Your task to perform on an android device: Open location settings Image 0: 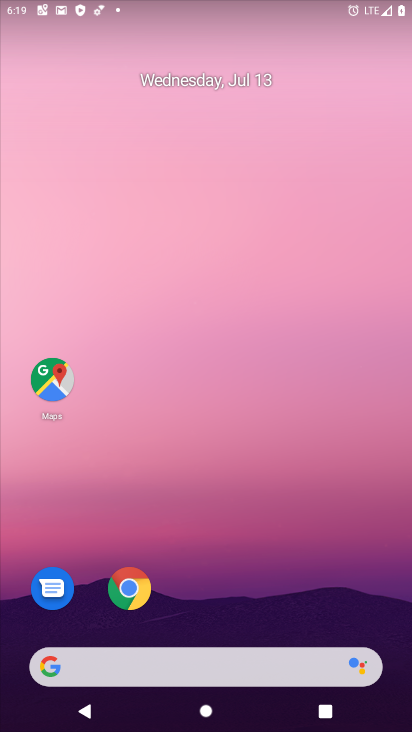
Step 0: drag from (185, 583) to (173, 345)
Your task to perform on an android device: Open location settings Image 1: 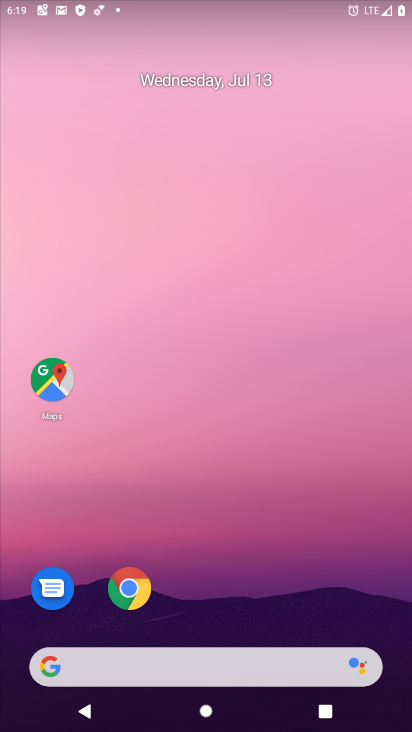
Step 1: drag from (173, 439) to (173, 6)
Your task to perform on an android device: Open location settings Image 2: 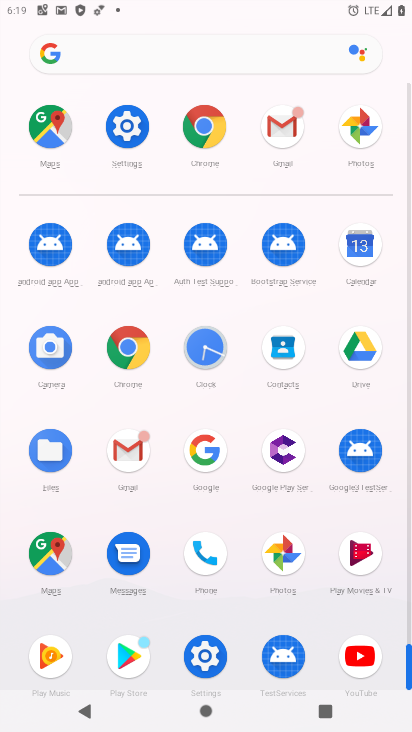
Step 2: click (126, 127)
Your task to perform on an android device: Open location settings Image 3: 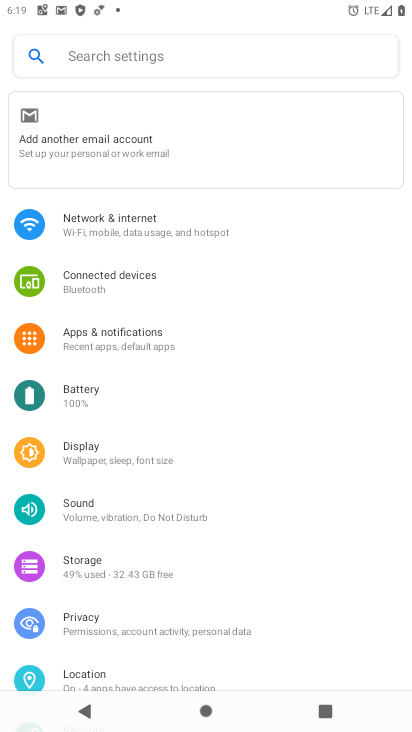
Step 3: click (94, 671)
Your task to perform on an android device: Open location settings Image 4: 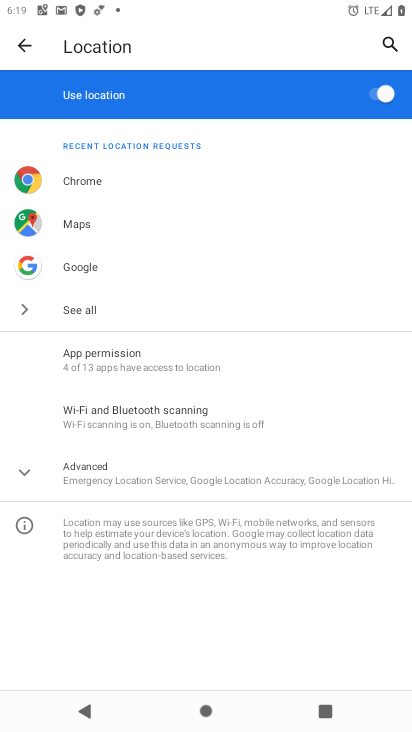
Step 4: task complete